Your task to perform on an android device: turn on notifications settings in the gmail app Image 0: 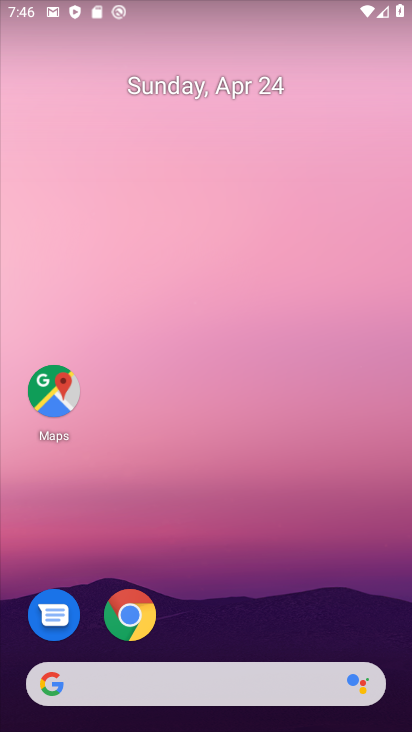
Step 0: drag from (309, 661) to (339, 88)
Your task to perform on an android device: turn on notifications settings in the gmail app Image 1: 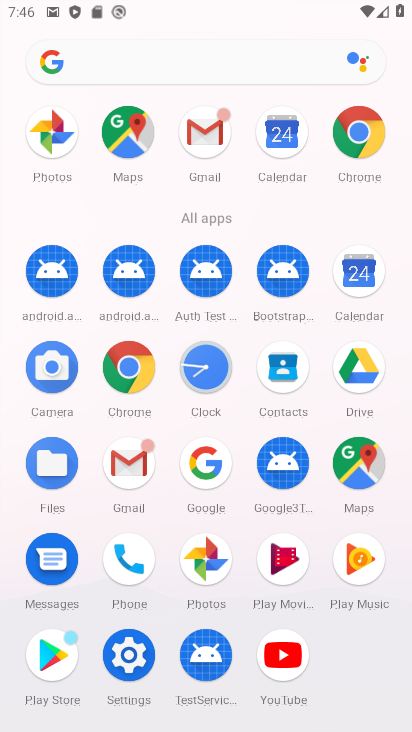
Step 1: click (124, 470)
Your task to perform on an android device: turn on notifications settings in the gmail app Image 2: 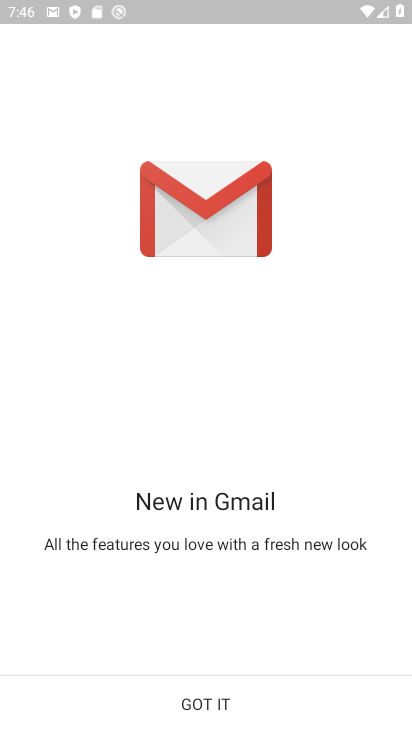
Step 2: click (189, 707)
Your task to perform on an android device: turn on notifications settings in the gmail app Image 3: 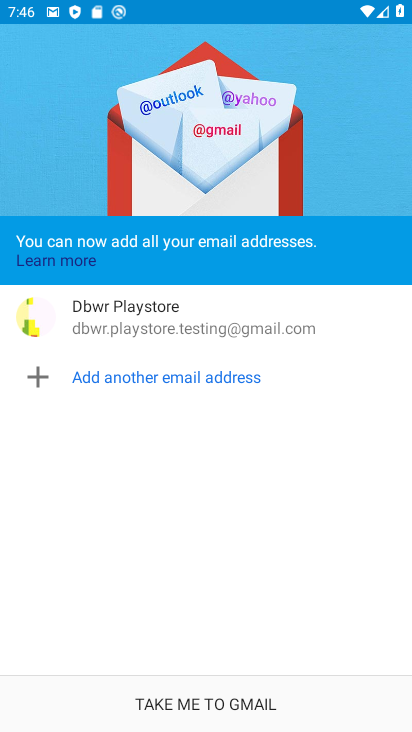
Step 3: click (189, 707)
Your task to perform on an android device: turn on notifications settings in the gmail app Image 4: 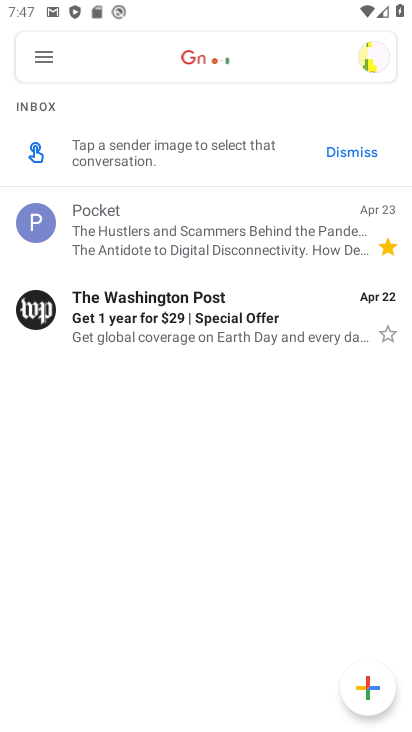
Step 4: click (36, 61)
Your task to perform on an android device: turn on notifications settings in the gmail app Image 5: 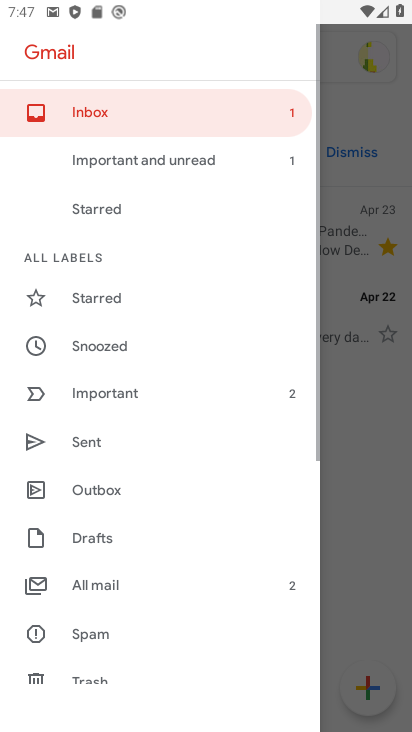
Step 5: drag from (175, 643) to (273, 102)
Your task to perform on an android device: turn on notifications settings in the gmail app Image 6: 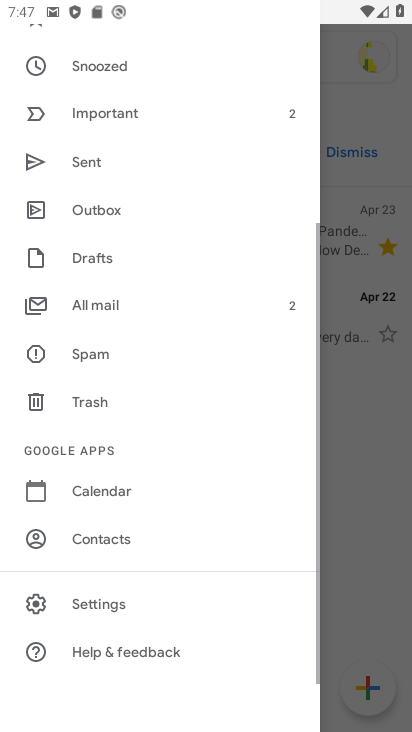
Step 6: click (161, 612)
Your task to perform on an android device: turn on notifications settings in the gmail app Image 7: 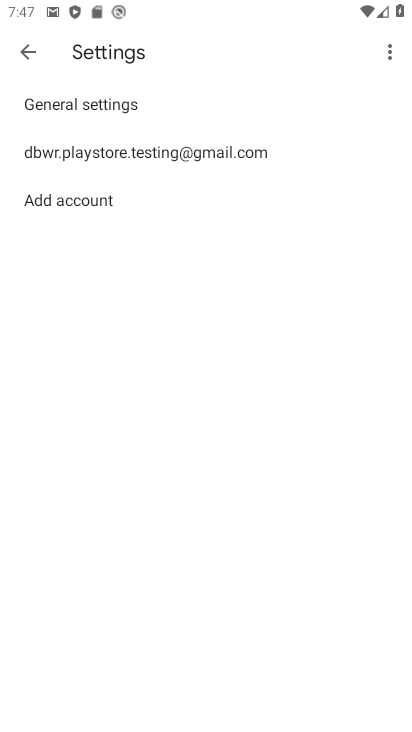
Step 7: click (171, 160)
Your task to perform on an android device: turn on notifications settings in the gmail app Image 8: 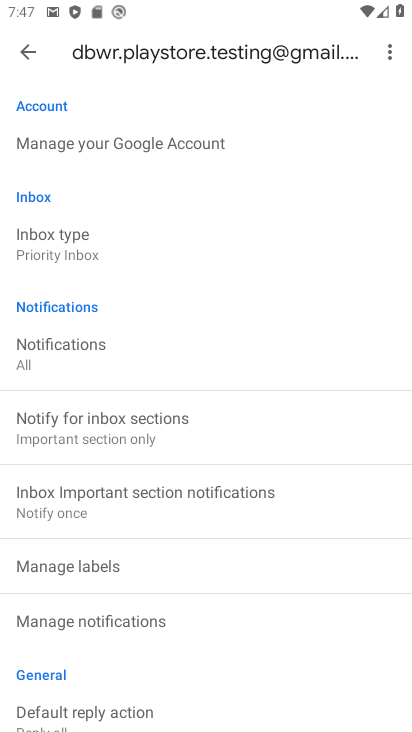
Step 8: click (133, 351)
Your task to perform on an android device: turn on notifications settings in the gmail app Image 9: 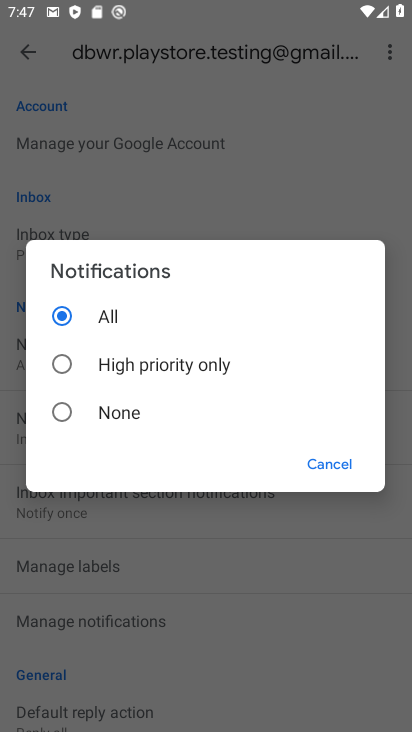
Step 9: task complete